Your task to perform on an android device: Go to settings Image 0: 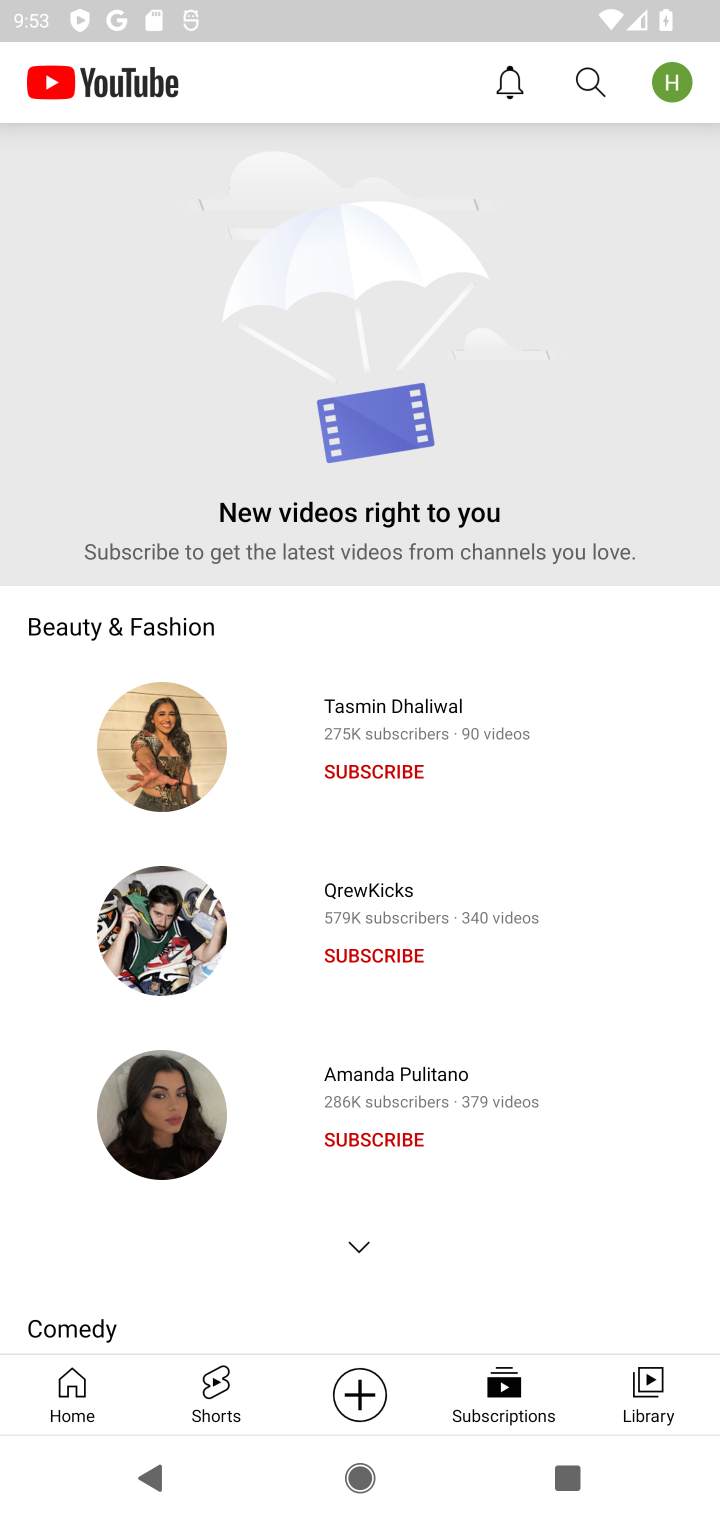
Step 0: press back button
Your task to perform on an android device: Go to settings Image 1: 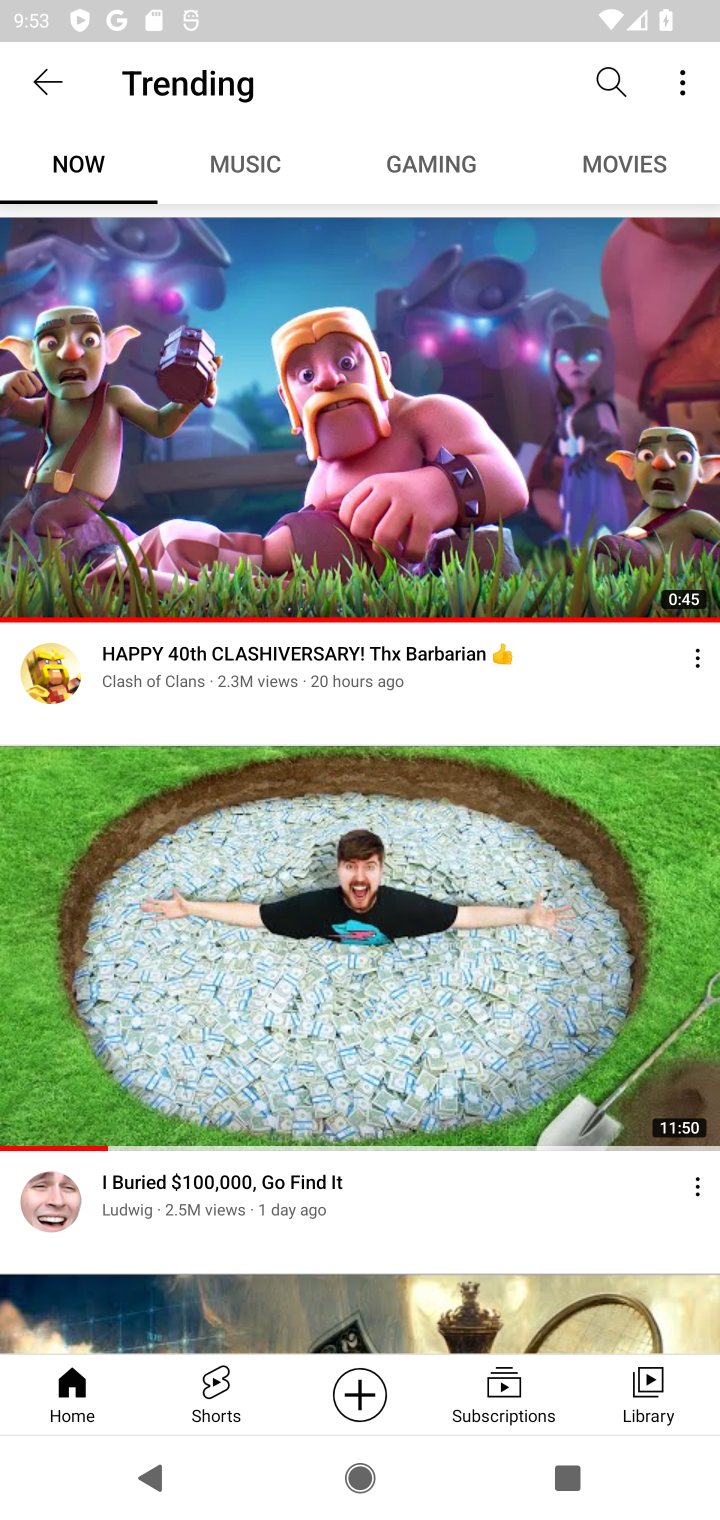
Step 1: press back button
Your task to perform on an android device: Go to settings Image 2: 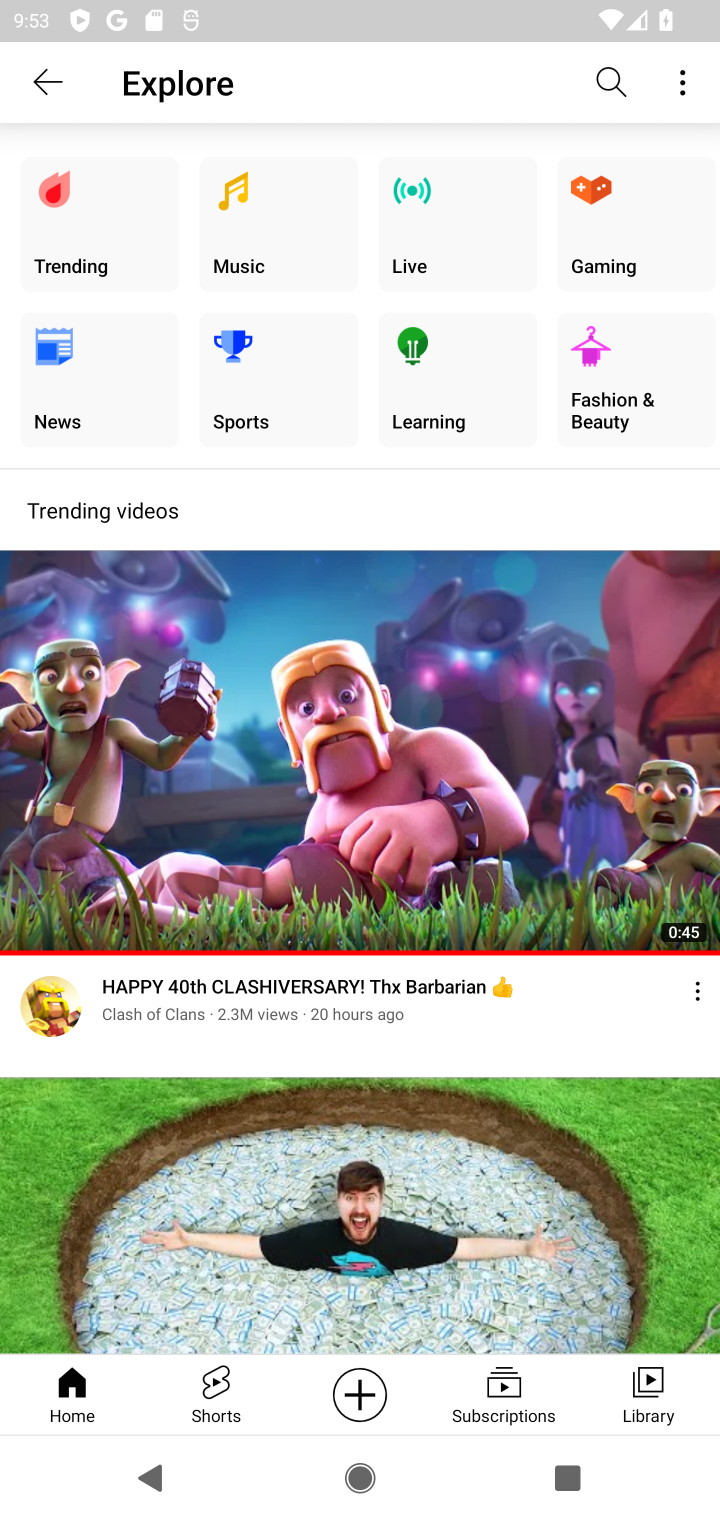
Step 2: press back button
Your task to perform on an android device: Go to settings Image 3: 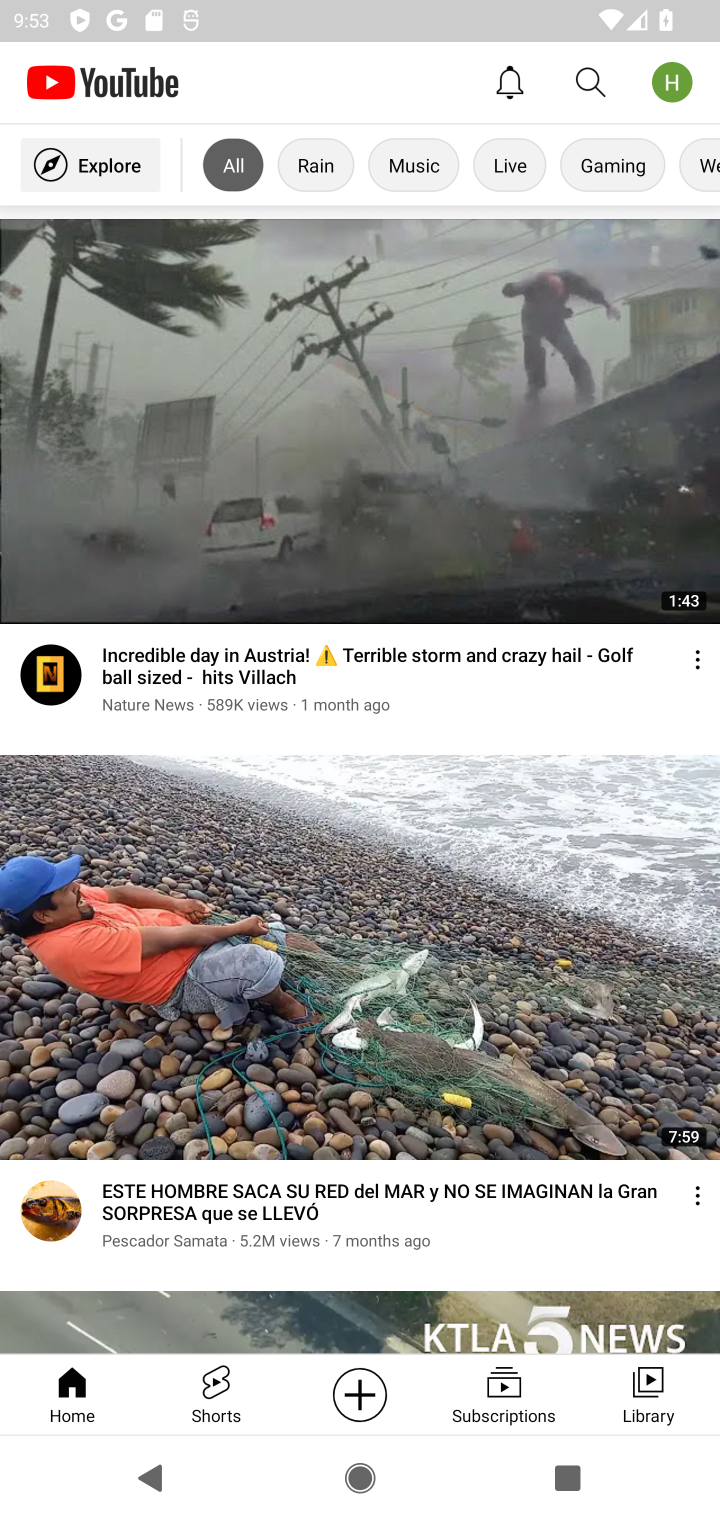
Step 3: press back button
Your task to perform on an android device: Go to settings Image 4: 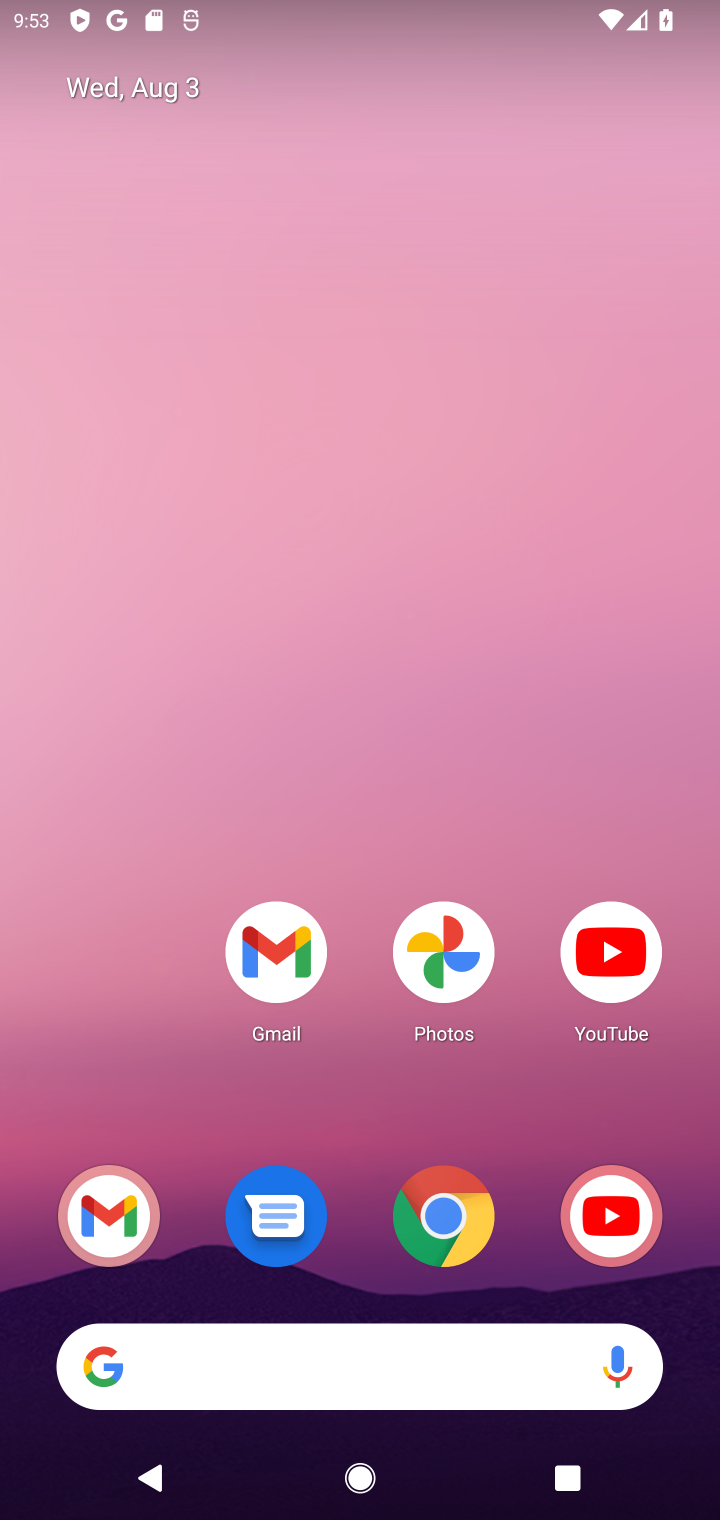
Step 4: drag from (97, 1117) to (229, 39)
Your task to perform on an android device: Go to settings Image 5: 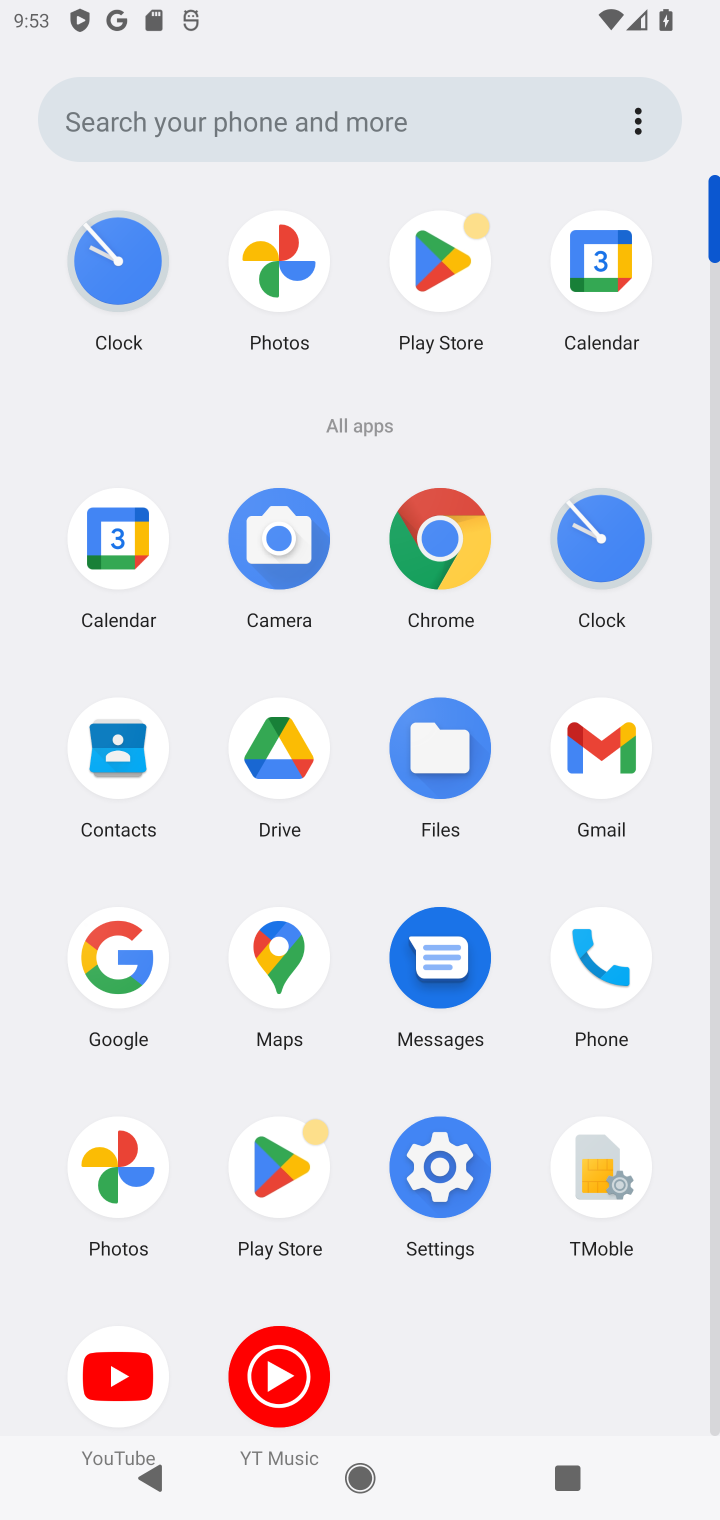
Step 5: click (443, 1195)
Your task to perform on an android device: Go to settings Image 6: 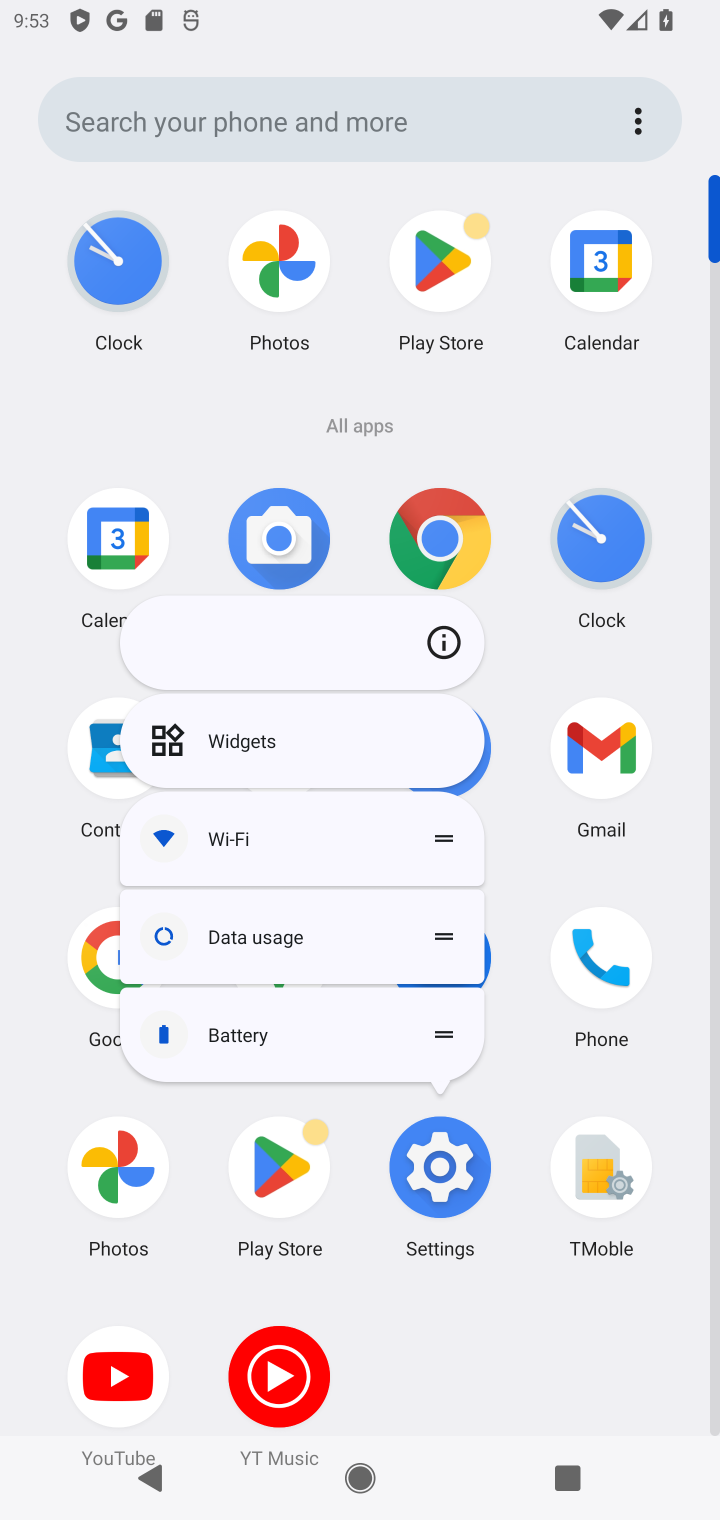
Step 6: click (420, 1178)
Your task to perform on an android device: Go to settings Image 7: 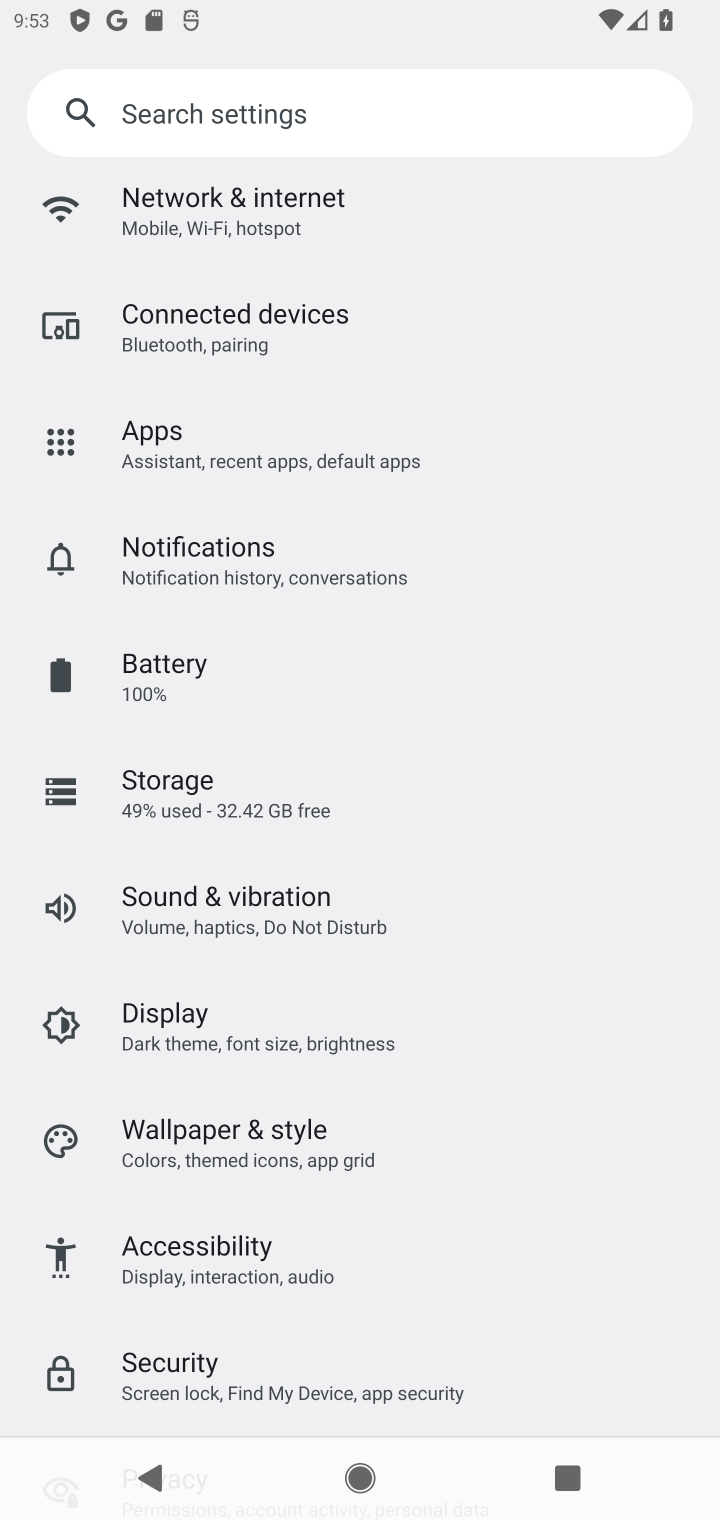
Step 7: task complete